Your task to perform on an android device: Go to battery settings Image 0: 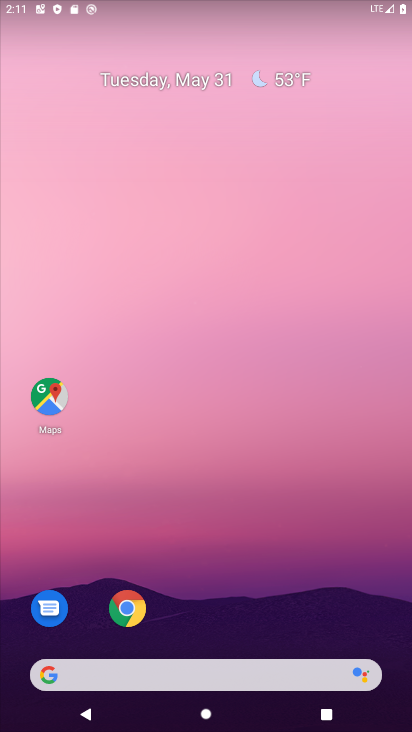
Step 0: press home button
Your task to perform on an android device: Go to battery settings Image 1: 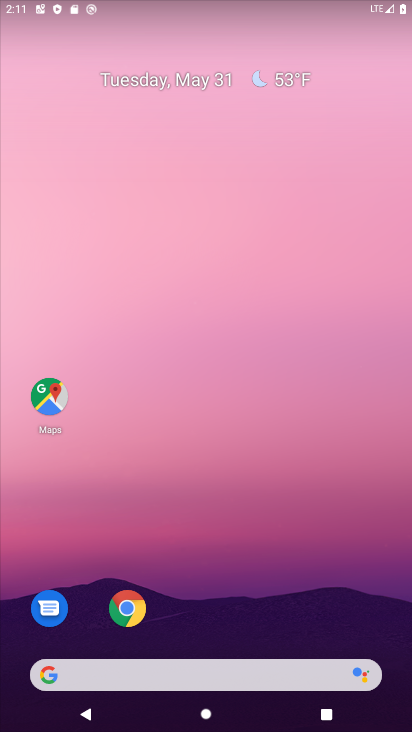
Step 1: drag from (324, 589) to (410, 97)
Your task to perform on an android device: Go to battery settings Image 2: 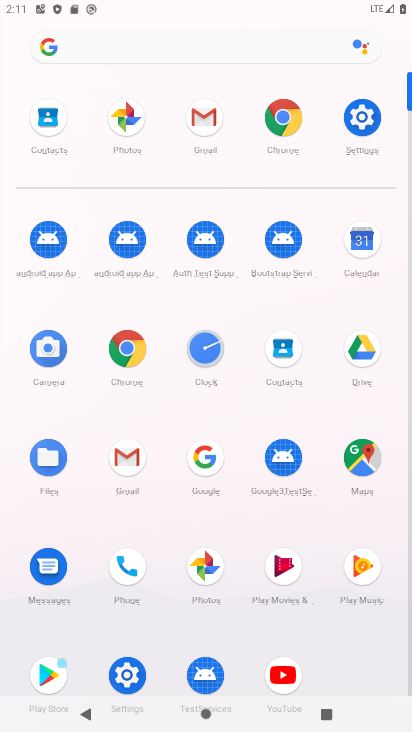
Step 2: click (365, 109)
Your task to perform on an android device: Go to battery settings Image 3: 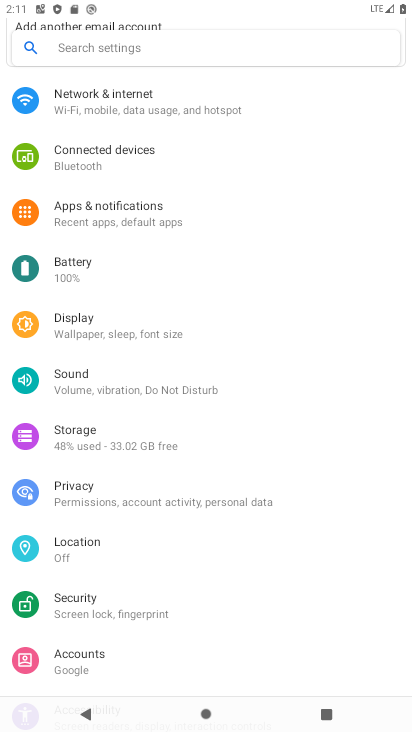
Step 3: drag from (355, 592) to (345, 256)
Your task to perform on an android device: Go to battery settings Image 4: 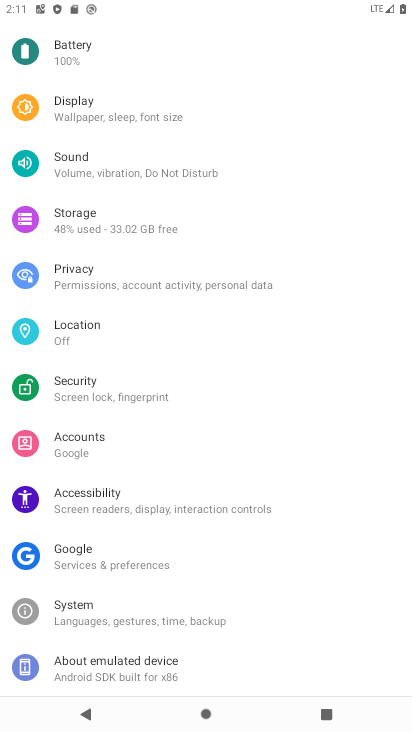
Step 4: click (115, 52)
Your task to perform on an android device: Go to battery settings Image 5: 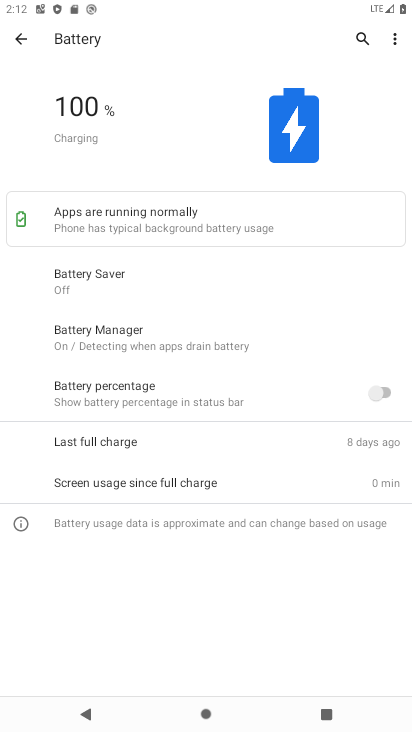
Step 5: task complete